Your task to perform on an android device: Open calendar and show me the third week of next month Image 0: 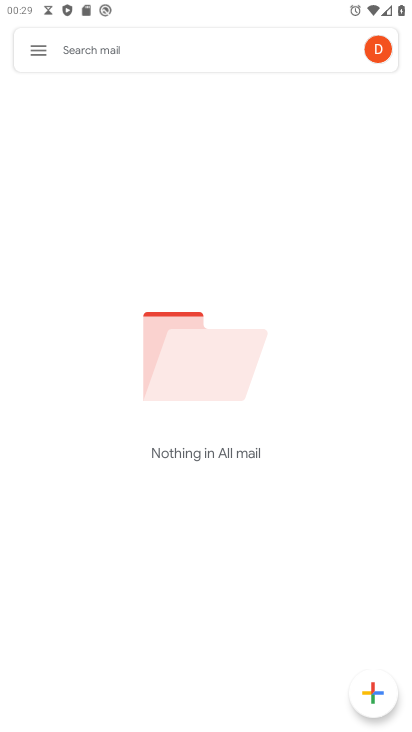
Step 0: press home button
Your task to perform on an android device: Open calendar and show me the third week of next month Image 1: 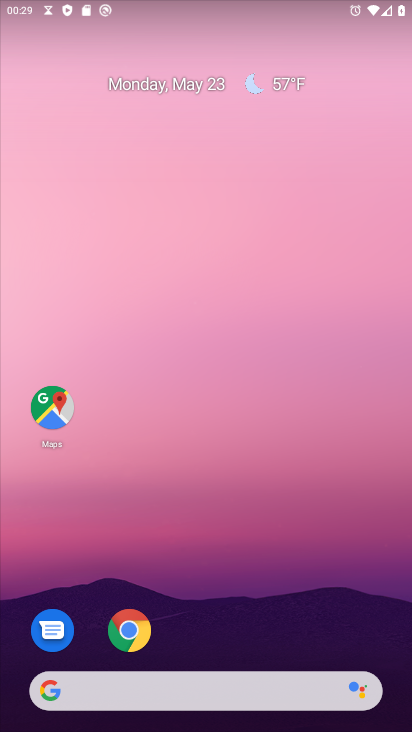
Step 1: drag from (310, 564) to (218, 70)
Your task to perform on an android device: Open calendar and show me the third week of next month Image 2: 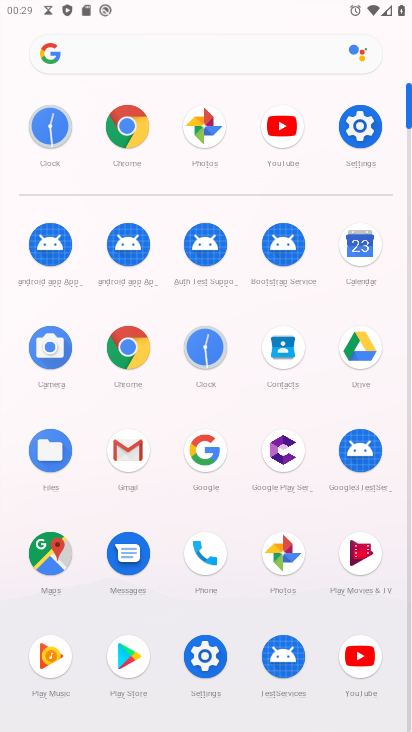
Step 2: click (364, 250)
Your task to perform on an android device: Open calendar and show me the third week of next month Image 3: 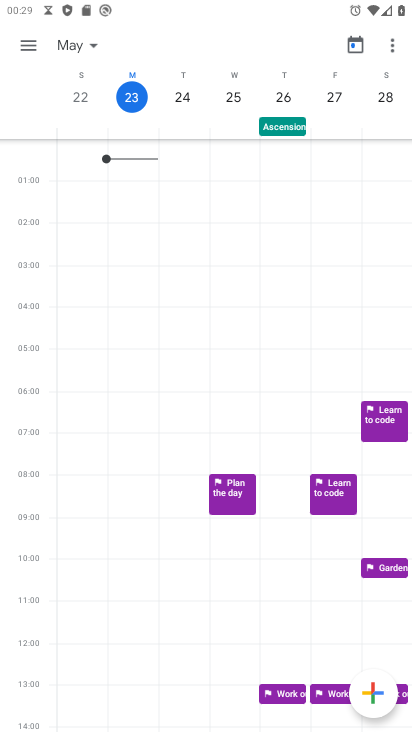
Step 3: click (85, 41)
Your task to perform on an android device: Open calendar and show me the third week of next month Image 4: 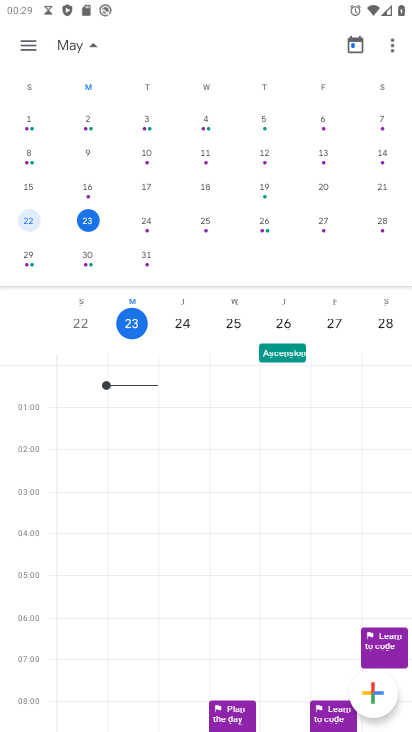
Step 4: drag from (359, 163) to (25, 273)
Your task to perform on an android device: Open calendar and show me the third week of next month Image 5: 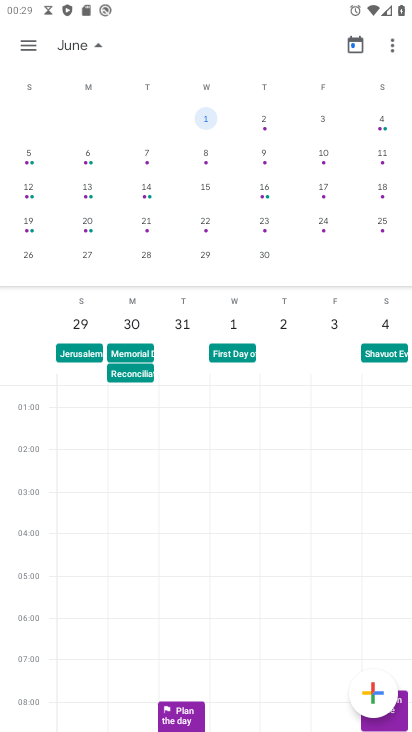
Step 5: click (40, 191)
Your task to perform on an android device: Open calendar and show me the third week of next month Image 6: 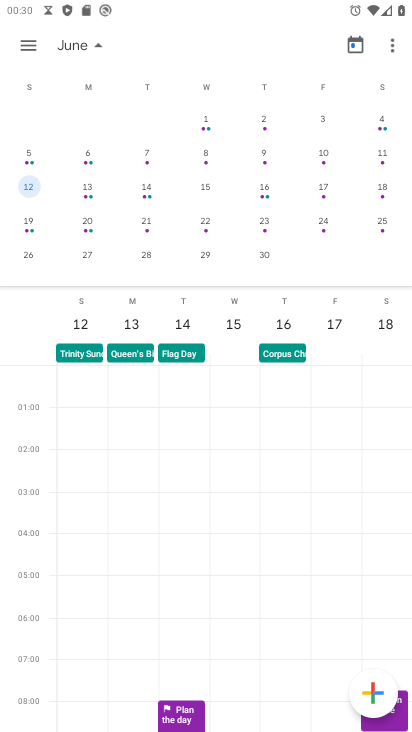
Step 6: task complete